Your task to perform on an android device: Open accessibility settings Image 0: 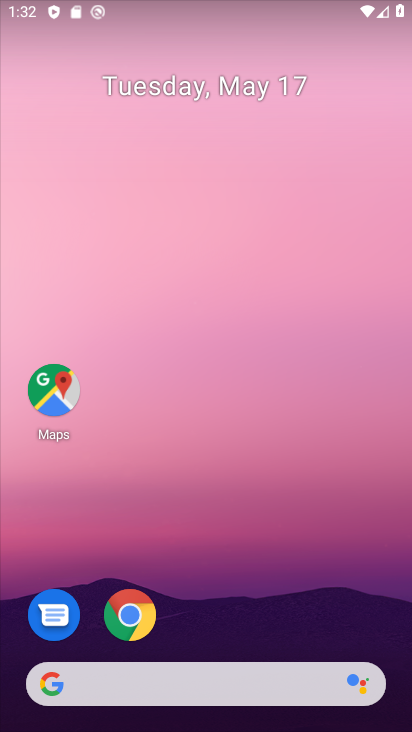
Step 0: drag from (231, 641) to (175, 26)
Your task to perform on an android device: Open accessibility settings Image 1: 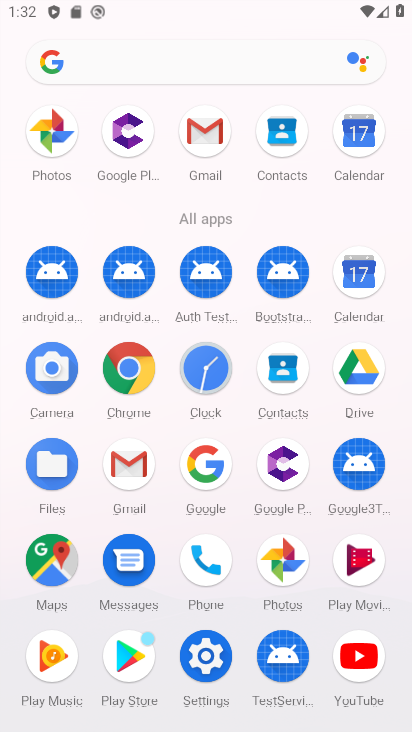
Step 1: click (208, 666)
Your task to perform on an android device: Open accessibility settings Image 2: 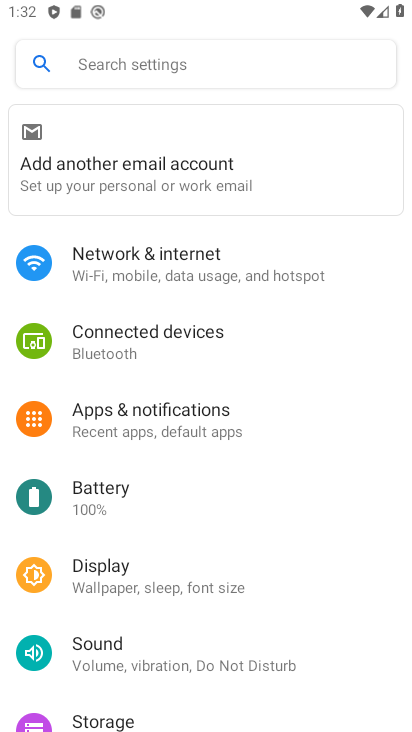
Step 2: drag from (234, 660) to (207, 442)
Your task to perform on an android device: Open accessibility settings Image 3: 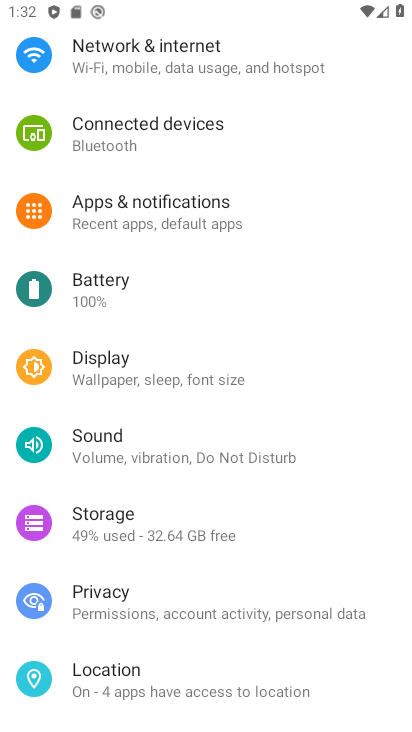
Step 3: drag from (220, 592) to (164, 408)
Your task to perform on an android device: Open accessibility settings Image 4: 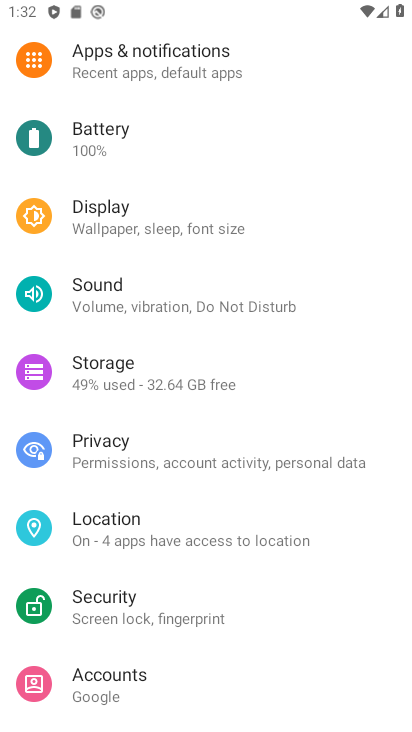
Step 4: drag from (119, 683) to (98, 440)
Your task to perform on an android device: Open accessibility settings Image 5: 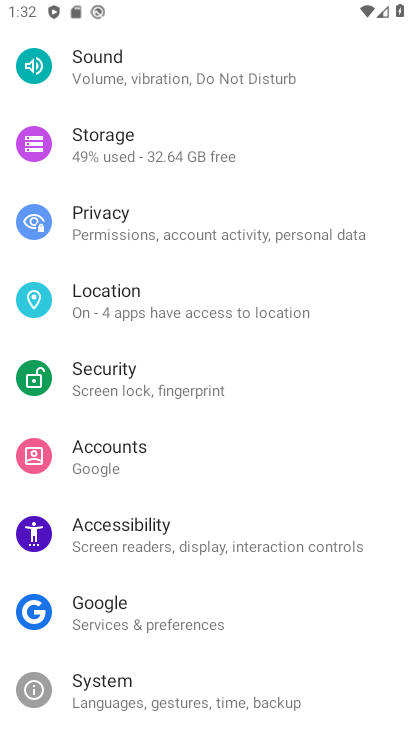
Step 5: click (155, 538)
Your task to perform on an android device: Open accessibility settings Image 6: 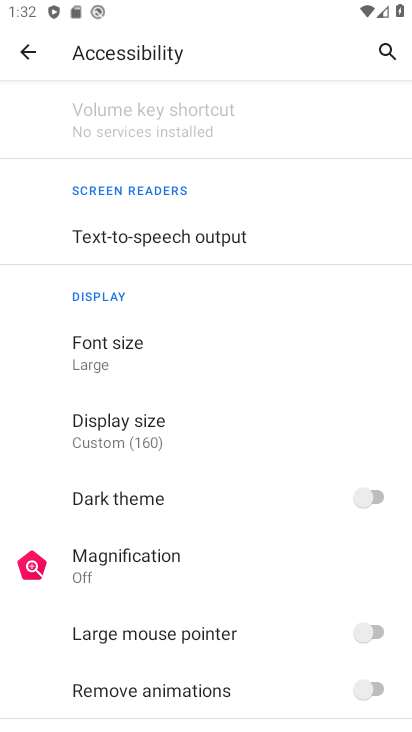
Step 6: task complete